Your task to perform on an android device: View the shopping cart on newegg.com. Search for razer blade on newegg.com, select the first entry, and add it to the cart. Image 0: 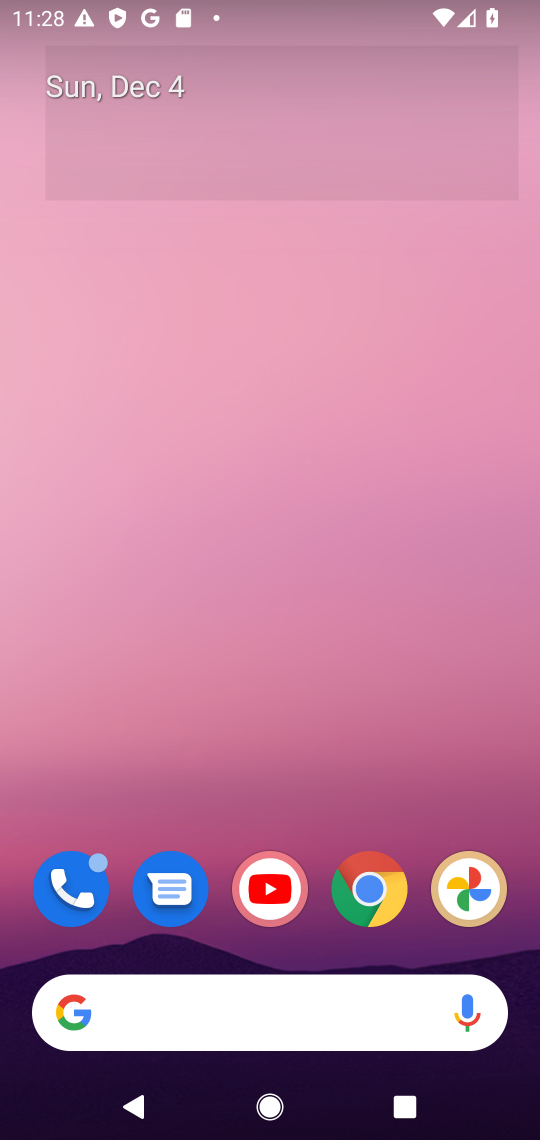
Step 0: click (365, 899)
Your task to perform on an android device: View the shopping cart on newegg.com. Search for razer blade on newegg.com, select the first entry, and add it to the cart. Image 1: 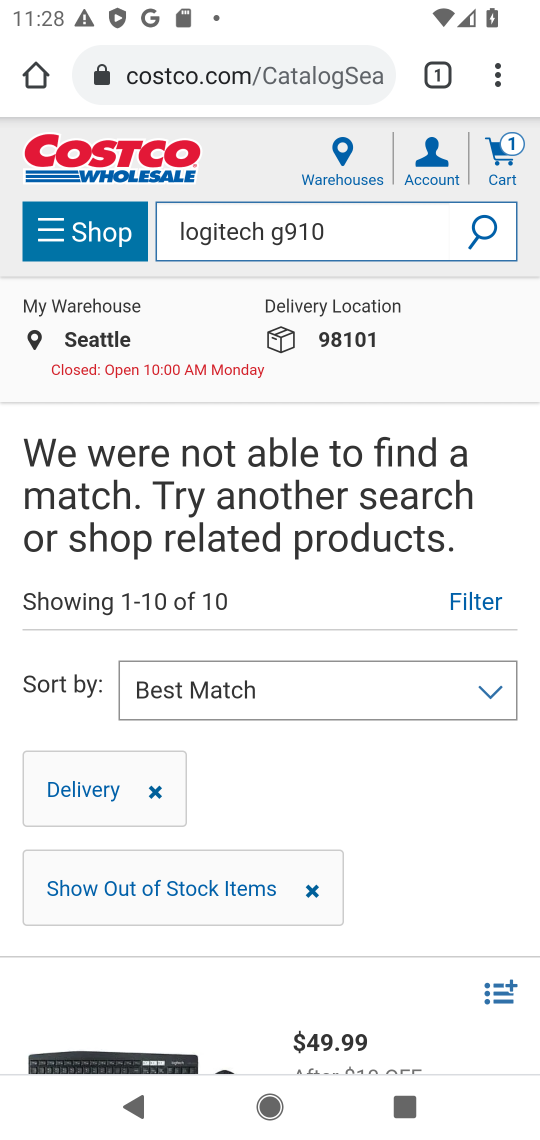
Step 1: click (331, 75)
Your task to perform on an android device: View the shopping cart on newegg.com. Search for razer blade on newegg.com, select the first entry, and add it to the cart. Image 2: 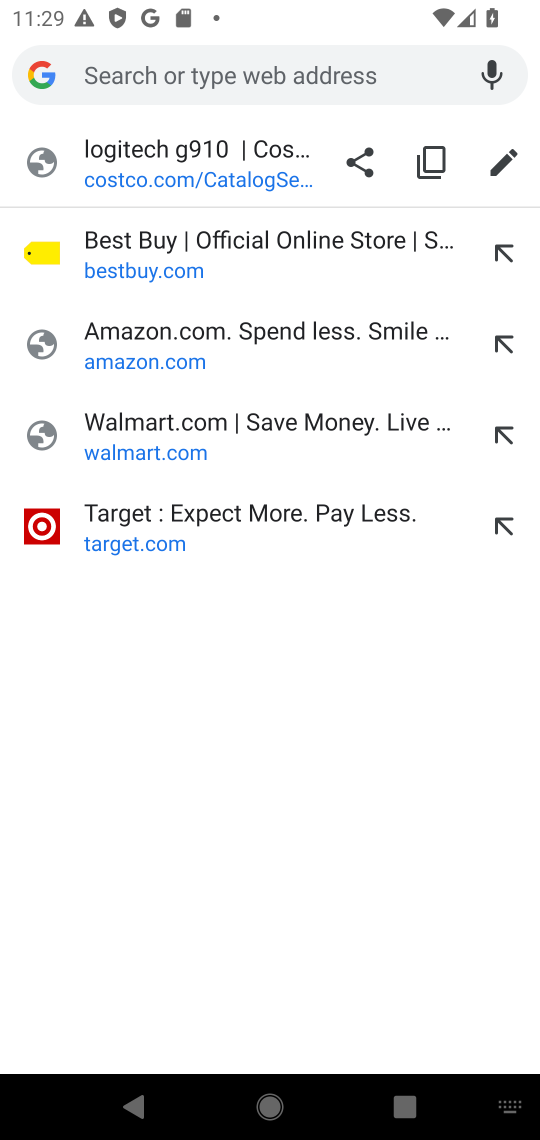
Step 2: type "newegg.com"
Your task to perform on an android device: View the shopping cart on newegg.com. Search for razer blade on newegg.com, select the first entry, and add it to the cart. Image 3: 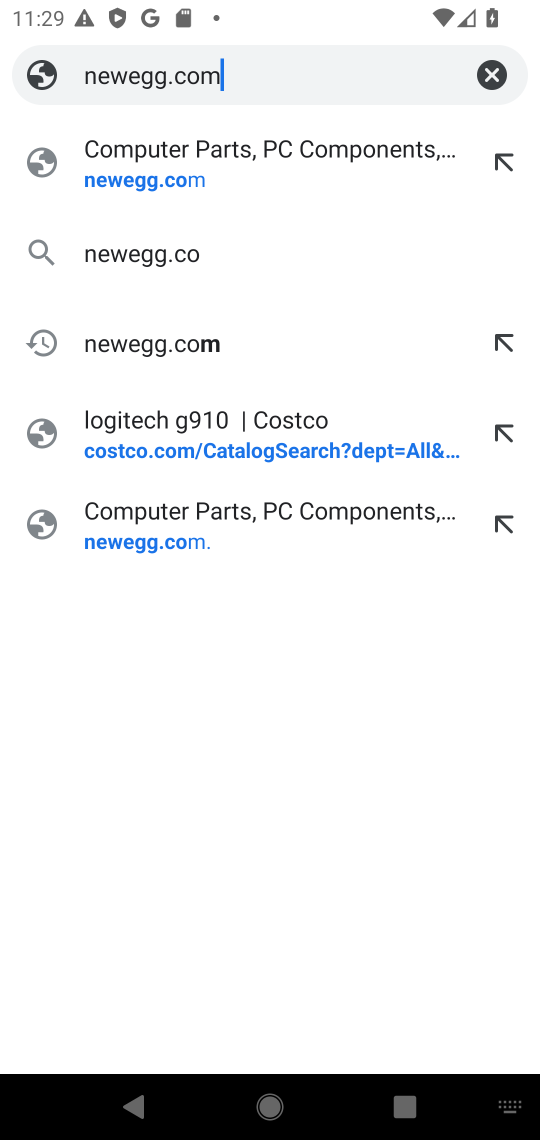
Step 3: press enter
Your task to perform on an android device: View the shopping cart on newegg.com. Search for razer blade on newegg.com, select the first entry, and add it to the cart. Image 4: 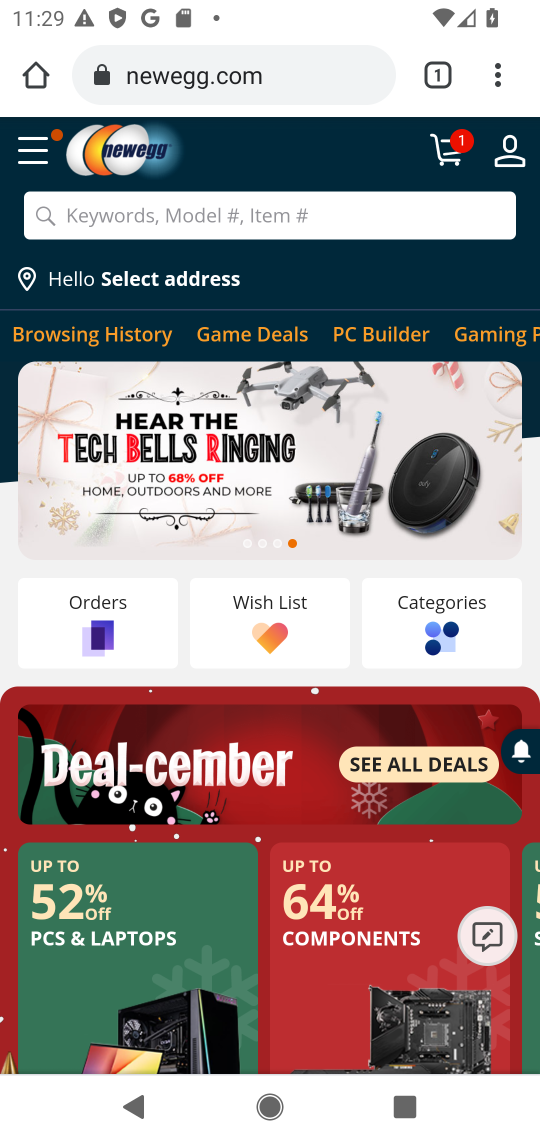
Step 4: click (453, 154)
Your task to perform on an android device: View the shopping cart on newegg.com. Search for razer blade on newegg.com, select the first entry, and add it to the cart. Image 5: 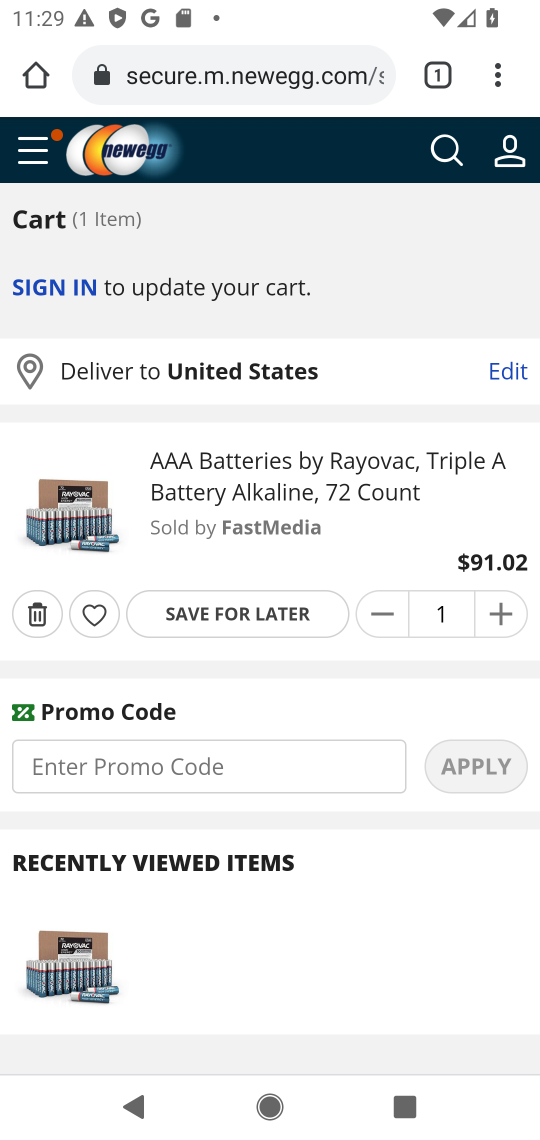
Step 5: click (451, 152)
Your task to perform on an android device: View the shopping cart on newegg.com. Search for razer blade on newegg.com, select the first entry, and add it to the cart. Image 6: 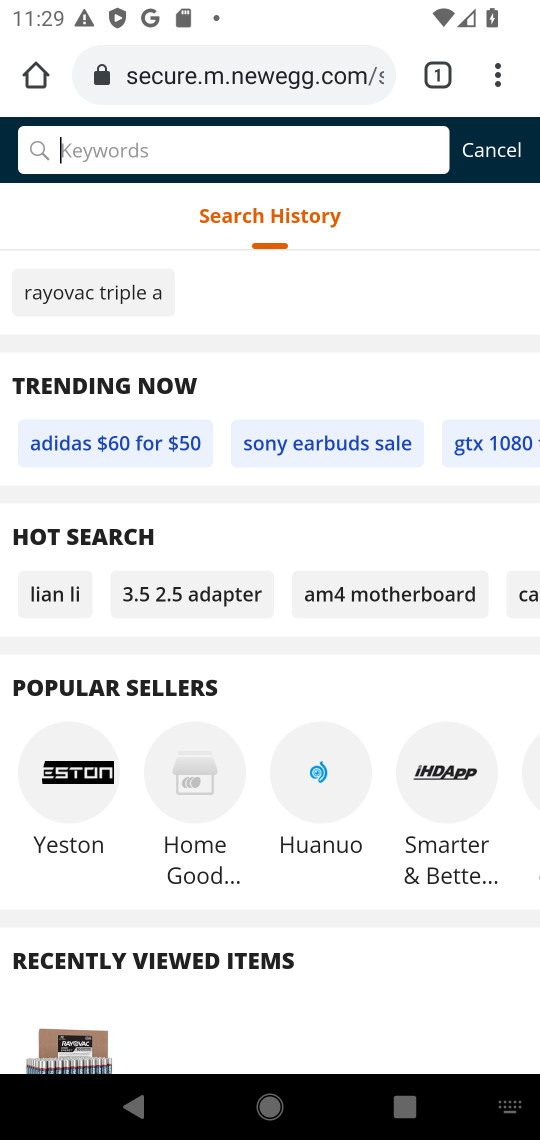
Step 6: type "razer blade"
Your task to perform on an android device: View the shopping cart on newegg.com. Search for razer blade on newegg.com, select the first entry, and add it to the cart. Image 7: 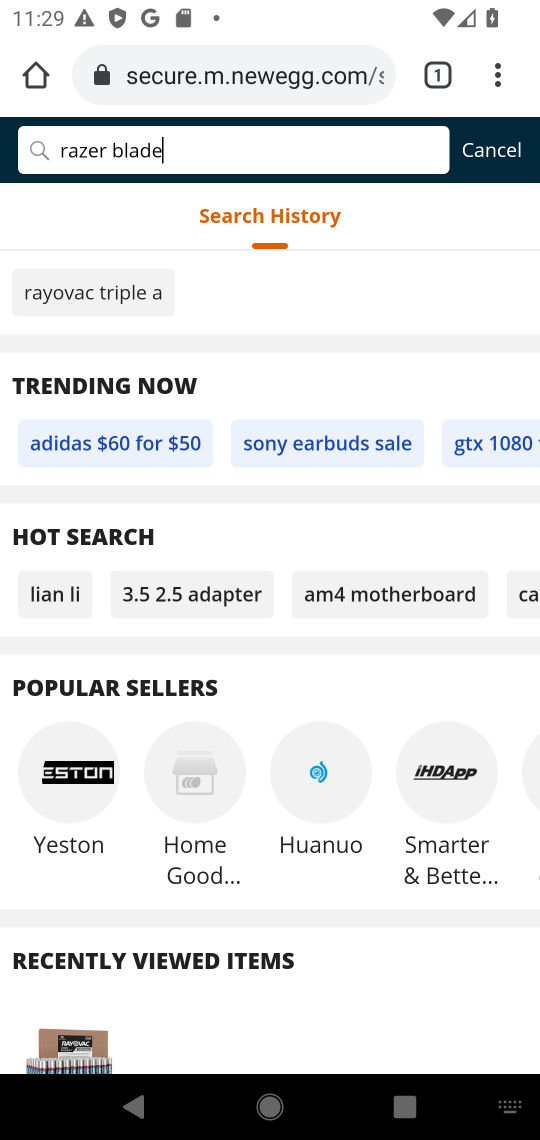
Step 7: press enter
Your task to perform on an android device: View the shopping cart on newegg.com. Search for razer blade on newegg.com, select the first entry, and add it to the cart. Image 8: 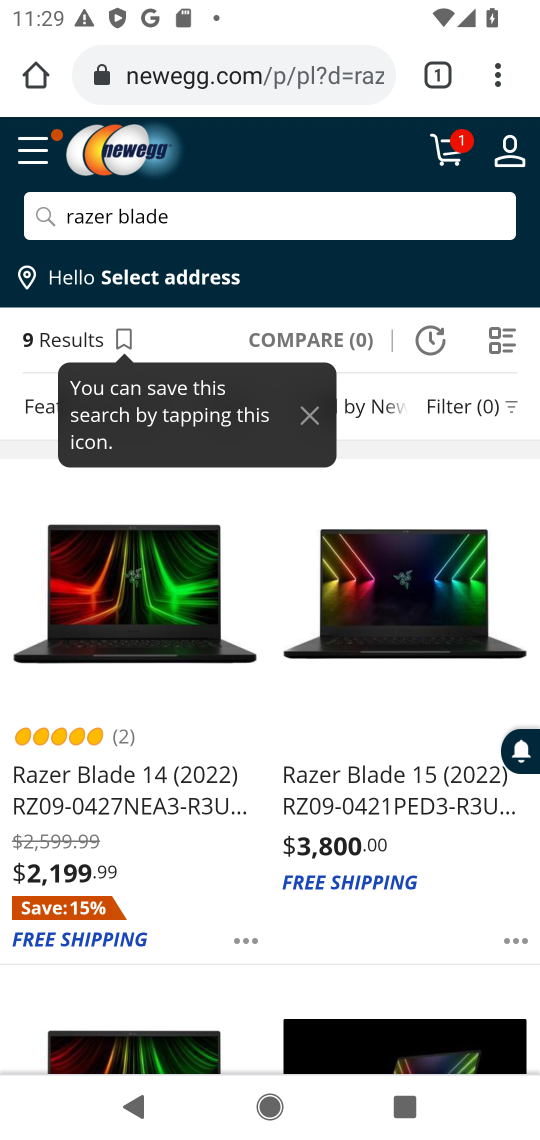
Step 8: click (169, 615)
Your task to perform on an android device: View the shopping cart on newegg.com. Search for razer blade on newegg.com, select the first entry, and add it to the cart. Image 9: 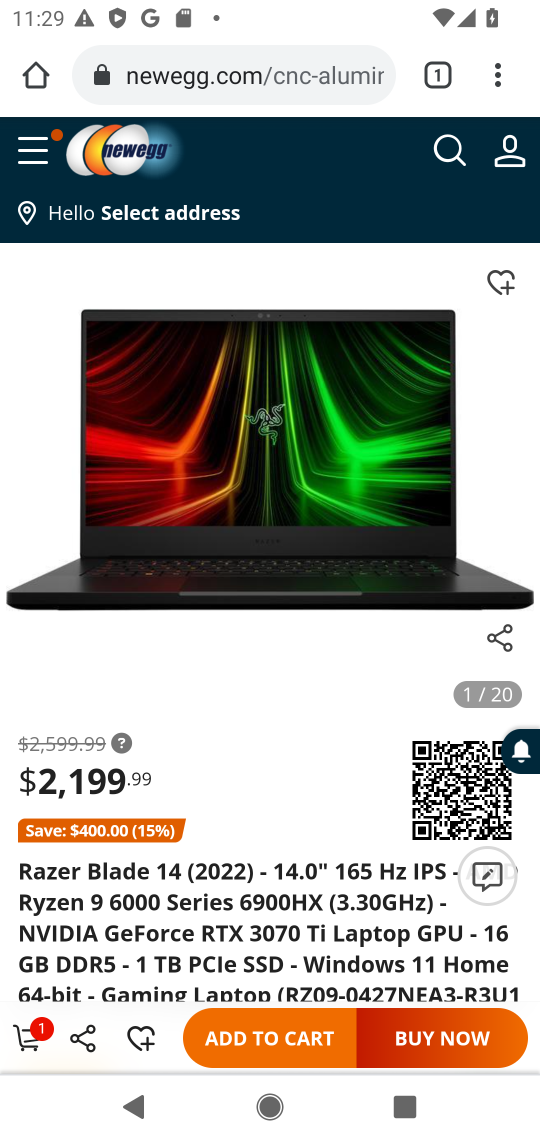
Step 9: click (279, 1035)
Your task to perform on an android device: View the shopping cart on newegg.com. Search for razer blade on newegg.com, select the first entry, and add it to the cart. Image 10: 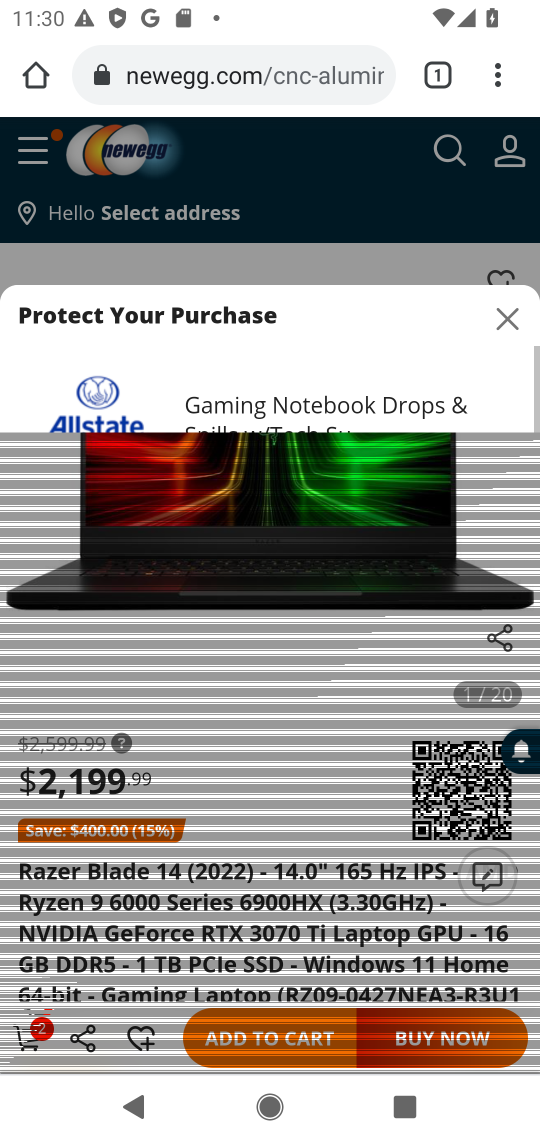
Step 10: click (510, 322)
Your task to perform on an android device: View the shopping cart on newegg.com. Search for razer blade on newegg.com, select the first entry, and add it to the cart. Image 11: 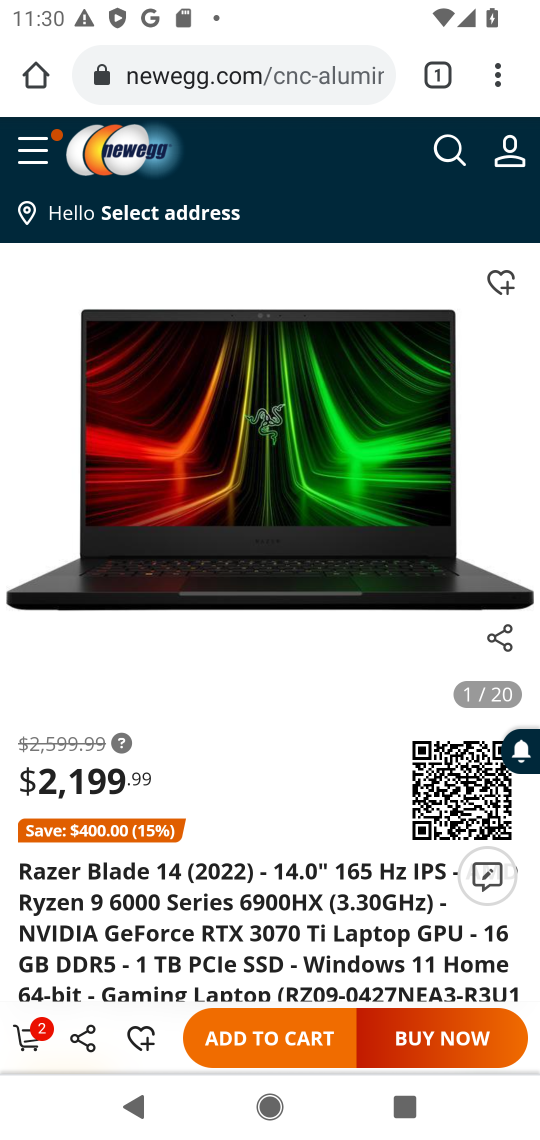
Step 11: click (22, 1038)
Your task to perform on an android device: View the shopping cart on newegg.com. Search for razer blade on newegg.com, select the first entry, and add it to the cart. Image 12: 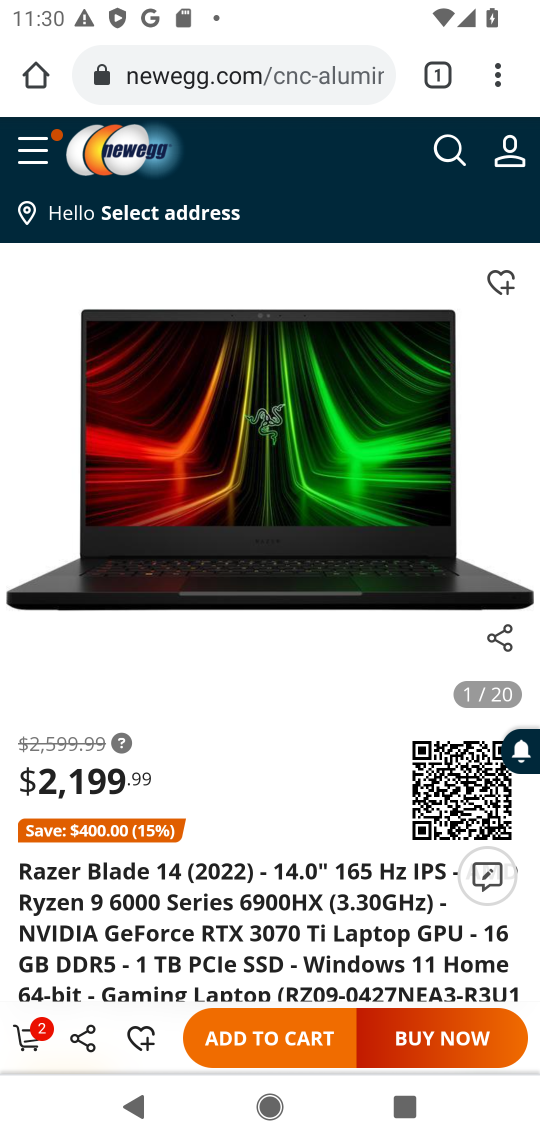
Step 12: task complete